Your task to perform on an android device: Show me popular videos on Youtube Image 0: 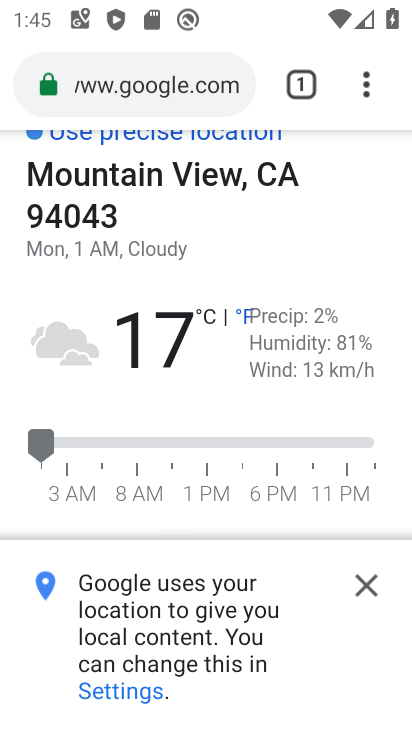
Step 0: press home button
Your task to perform on an android device: Show me popular videos on Youtube Image 1: 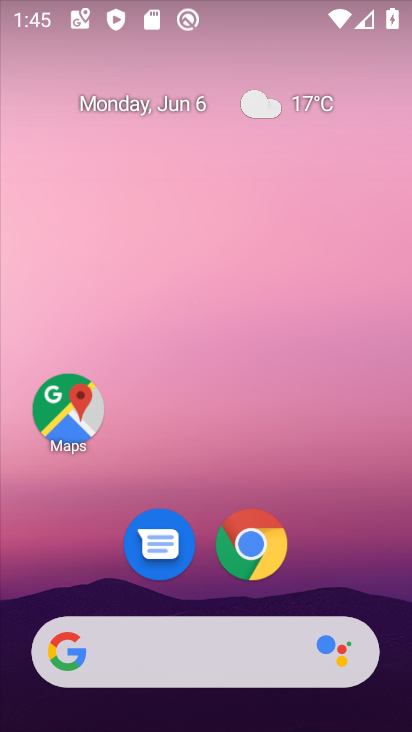
Step 1: drag from (372, 544) to (369, 79)
Your task to perform on an android device: Show me popular videos on Youtube Image 2: 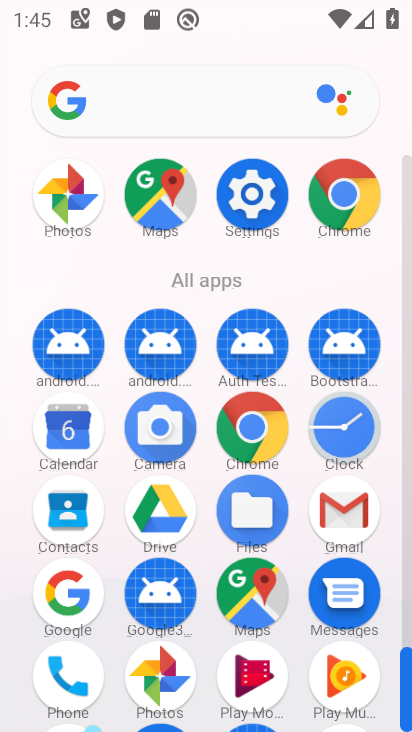
Step 2: drag from (283, 658) to (304, 258)
Your task to perform on an android device: Show me popular videos on Youtube Image 3: 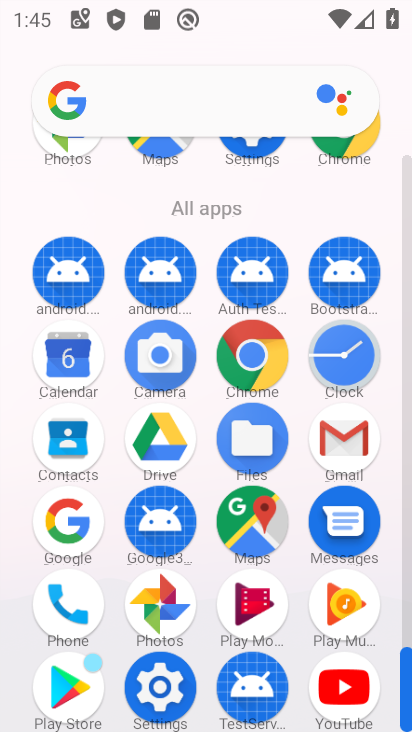
Step 3: click (348, 707)
Your task to perform on an android device: Show me popular videos on Youtube Image 4: 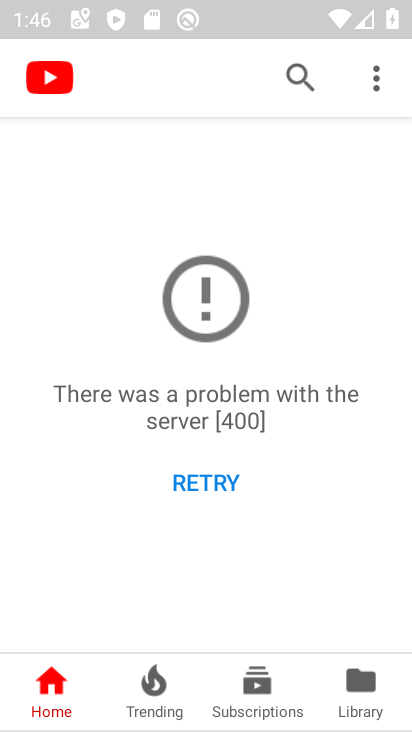
Step 4: click (171, 703)
Your task to perform on an android device: Show me popular videos on Youtube Image 5: 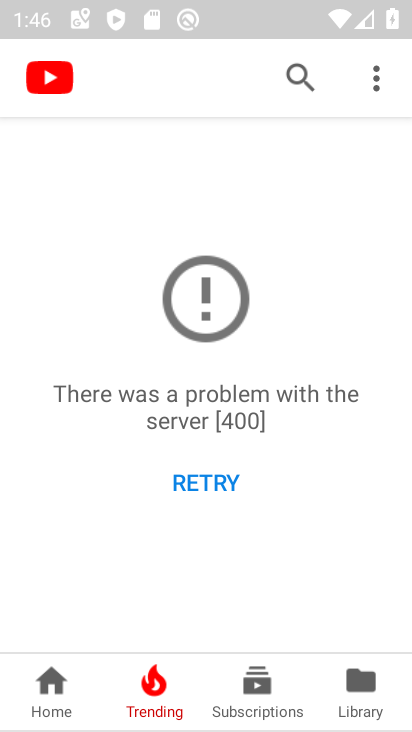
Step 5: task complete